Your task to perform on an android device: move a message to another label in the gmail app Image 0: 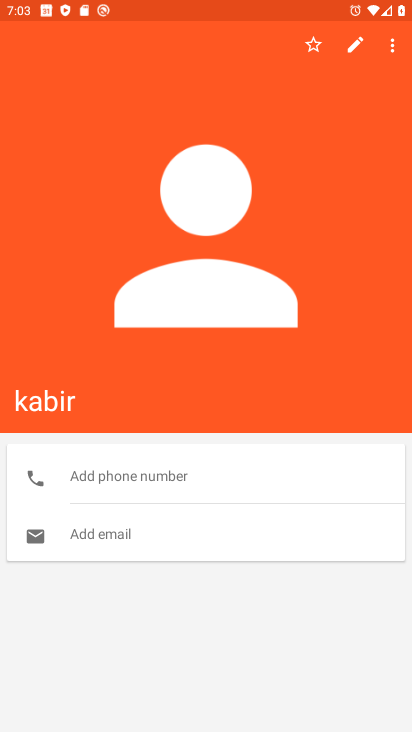
Step 0: press home button
Your task to perform on an android device: move a message to another label in the gmail app Image 1: 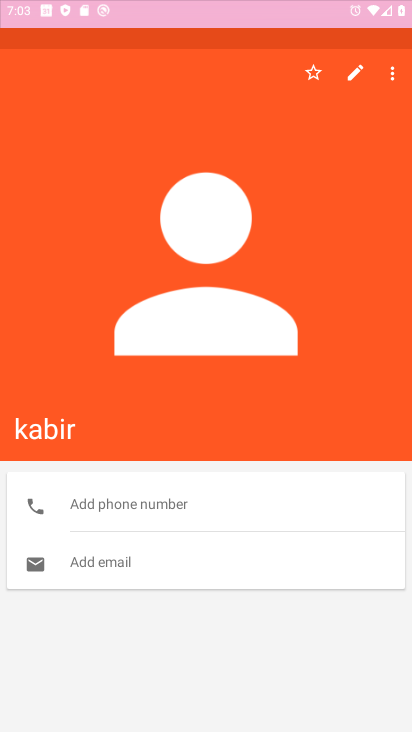
Step 1: drag from (367, 555) to (237, 20)
Your task to perform on an android device: move a message to another label in the gmail app Image 2: 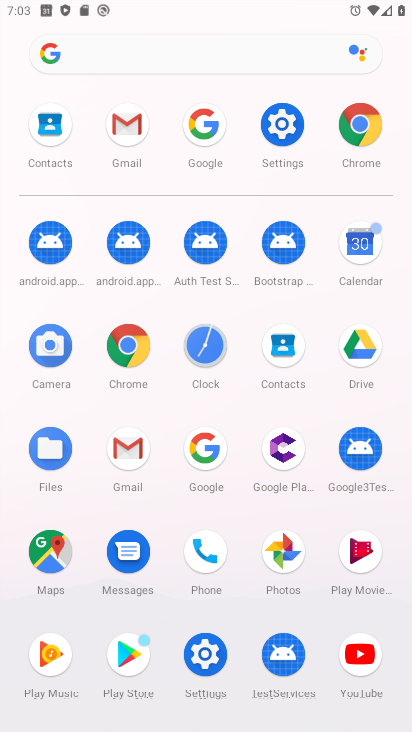
Step 2: click (119, 444)
Your task to perform on an android device: move a message to another label in the gmail app Image 3: 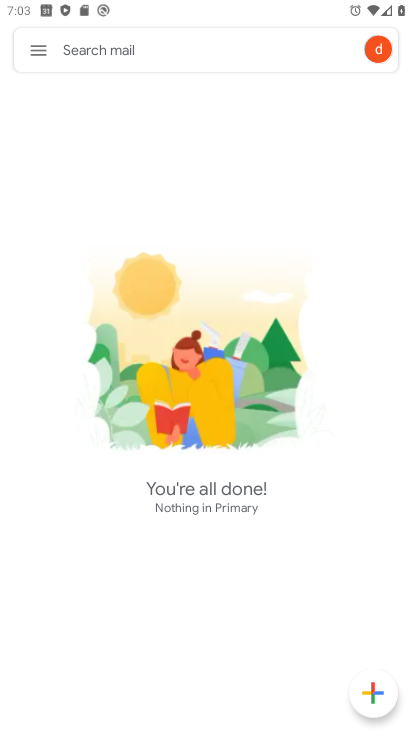
Step 3: task complete